Your task to perform on an android device: Go to Amazon Image 0: 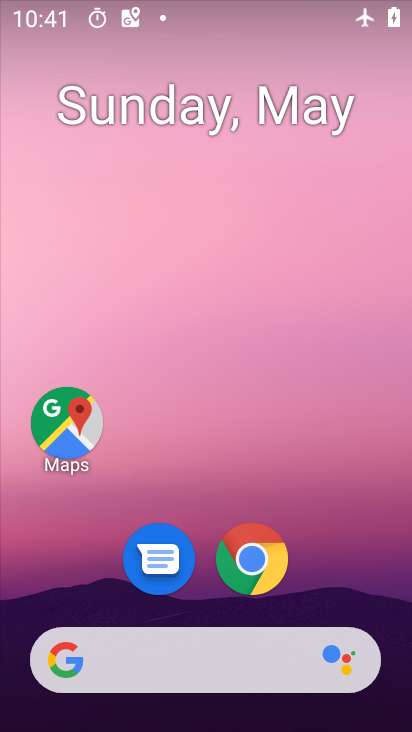
Step 0: drag from (356, 587) to (343, 130)
Your task to perform on an android device: Go to Amazon Image 1: 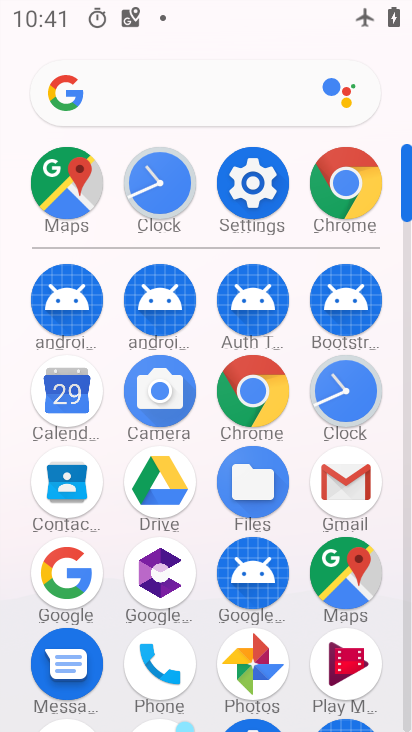
Step 1: drag from (230, 569) to (235, 282)
Your task to perform on an android device: Go to Amazon Image 2: 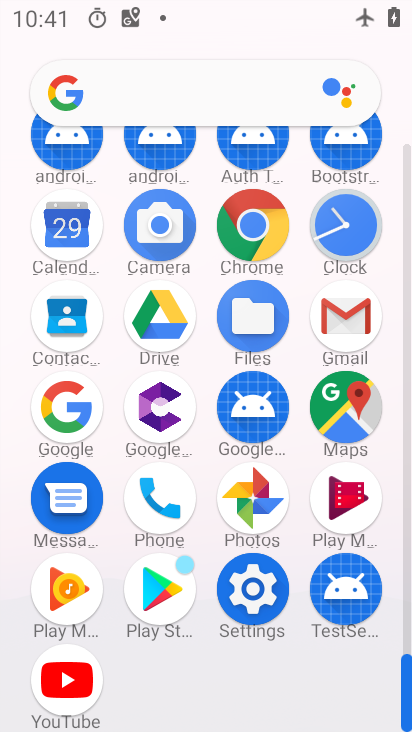
Step 2: drag from (301, 330) to (280, 574)
Your task to perform on an android device: Go to Amazon Image 3: 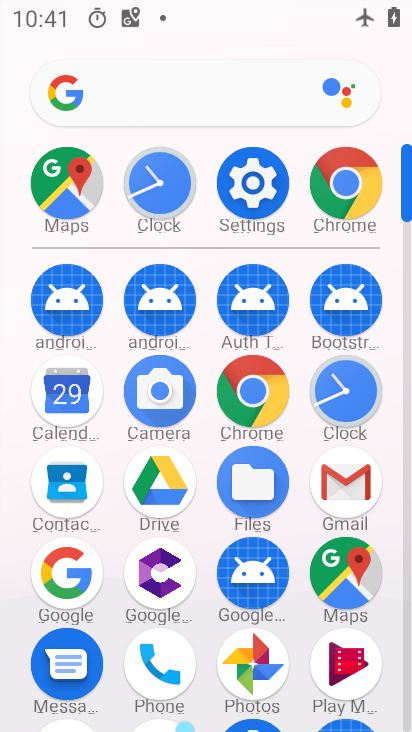
Step 3: drag from (198, 651) to (190, 408)
Your task to perform on an android device: Go to Amazon Image 4: 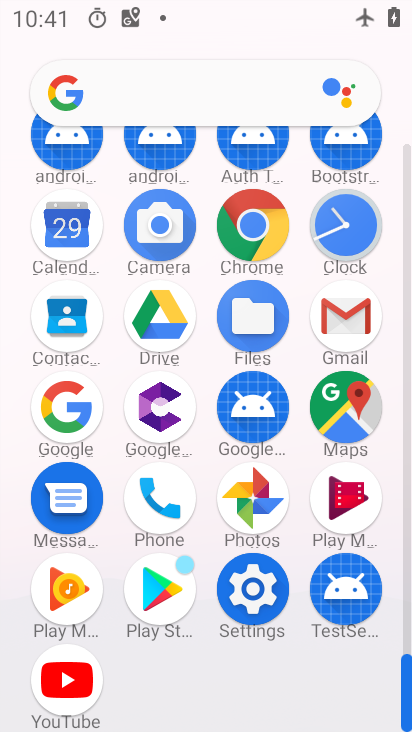
Step 4: drag from (199, 254) to (169, 536)
Your task to perform on an android device: Go to Amazon Image 5: 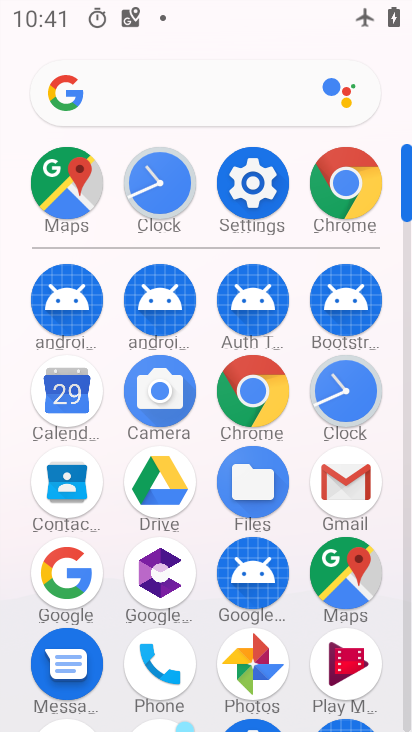
Step 5: click (245, 382)
Your task to perform on an android device: Go to Amazon Image 6: 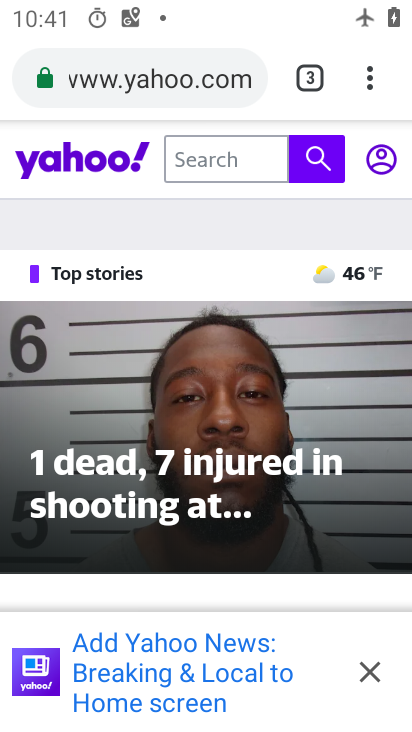
Step 6: click (319, 91)
Your task to perform on an android device: Go to Amazon Image 7: 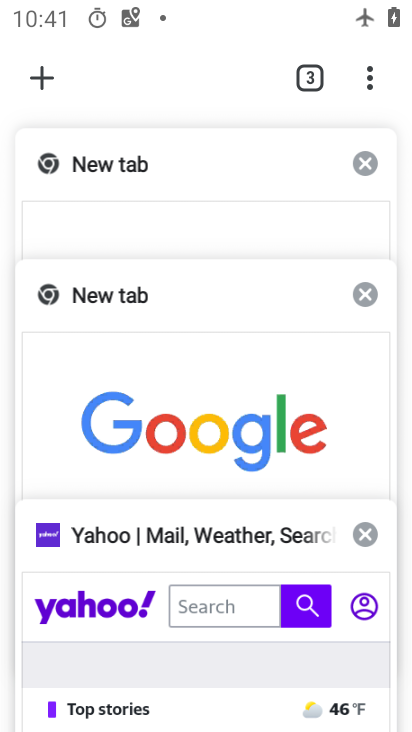
Step 7: click (35, 79)
Your task to perform on an android device: Go to Amazon Image 8: 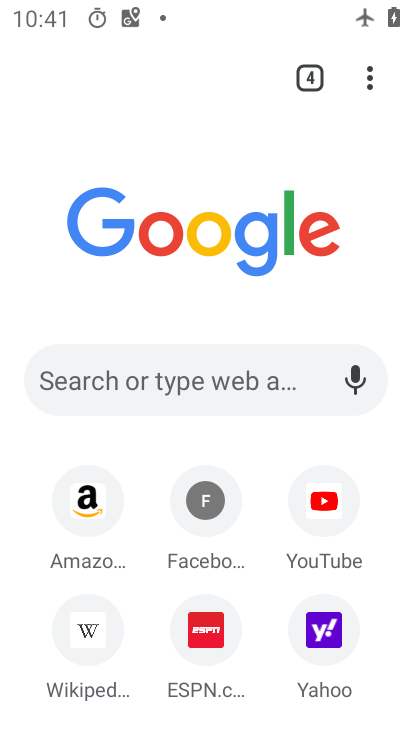
Step 8: click (86, 506)
Your task to perform on an android device: Go to Amazon Image 9: 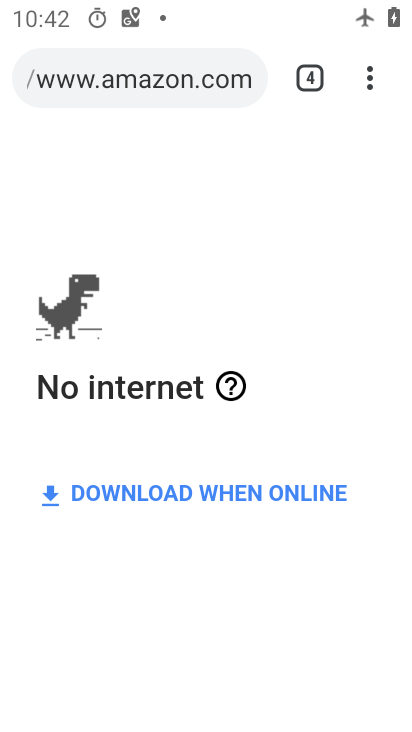
Step 9: task complete